Your task to perform on an android device: Open Yahoo.com Image 0: 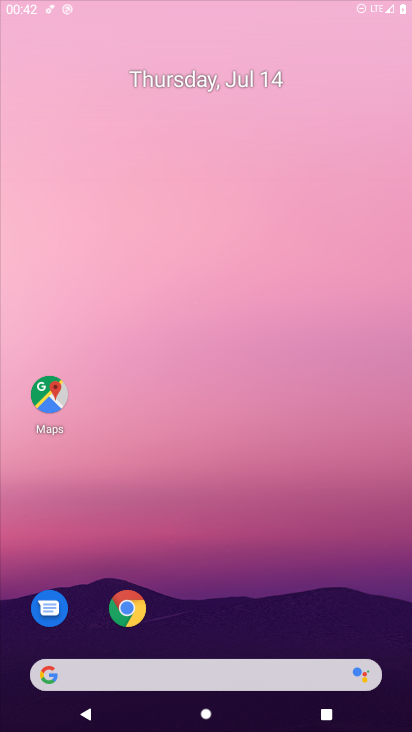
Step 0: press home button
Your task to perform on an android device: Open Yahoo.com Image 1: 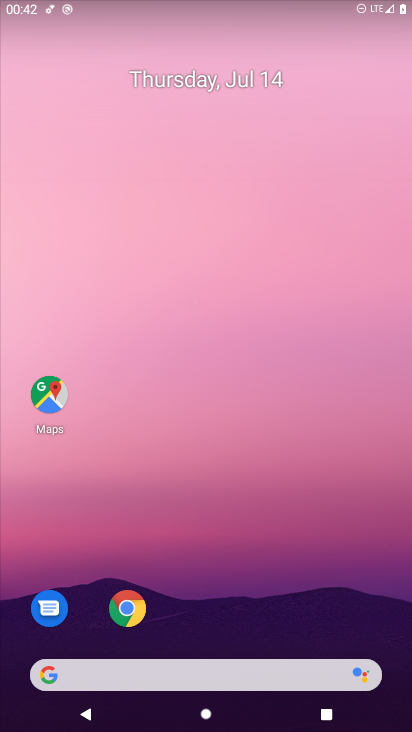
Step 1: click (62, 669)
Your task to perform on an android device: Open Yahoo.com Image 2: 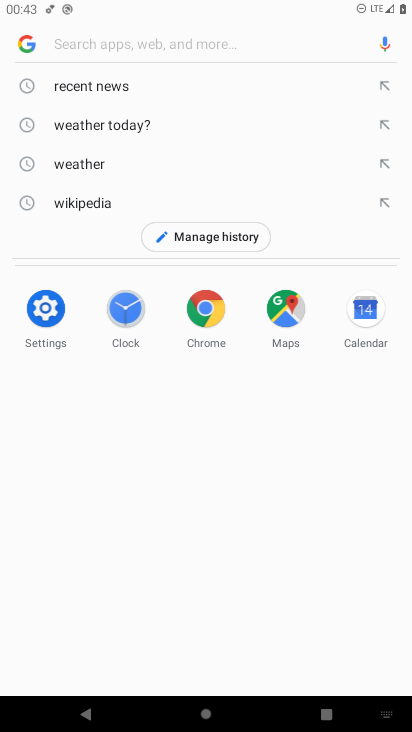
Step 2: type " Yahoo.com"
Your task to perform on an android device: Open Yahoo.com Image 3: 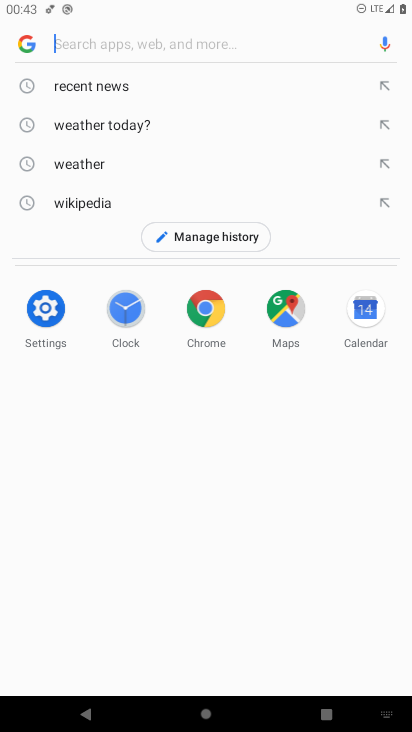
Step 3: click (80, 35)
Your task to perform on an android device: Open Yahoo.com Image 4: 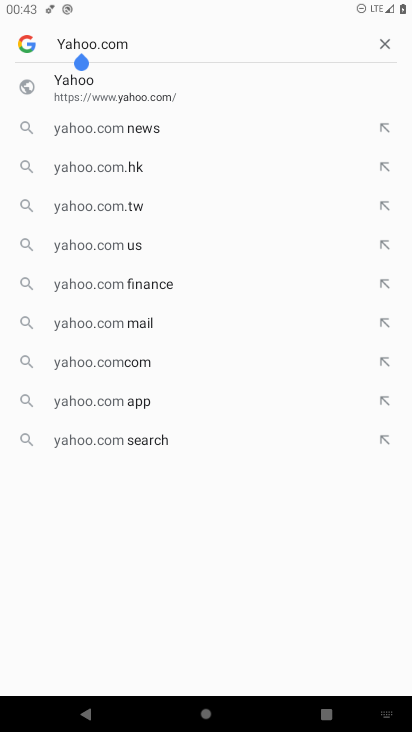
Step 4: click (71, 90)
Your task to perform on an android device: Open Yahoo.com Image 5: 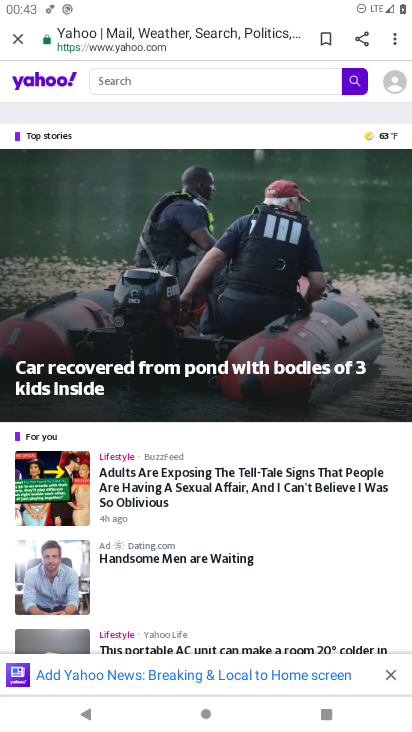
Step 5: task complete